Your task to perform on an android device: open sync settings in chrome Image 0: 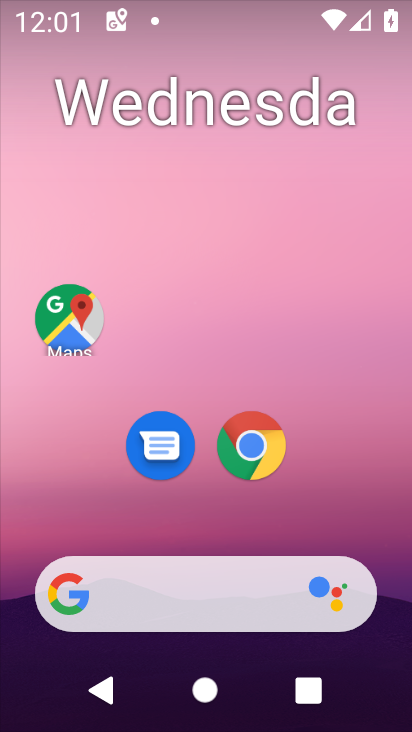
Step 0: click (254, 444)
Your task to perform on an android device: open sync settings in chrome Image 1: 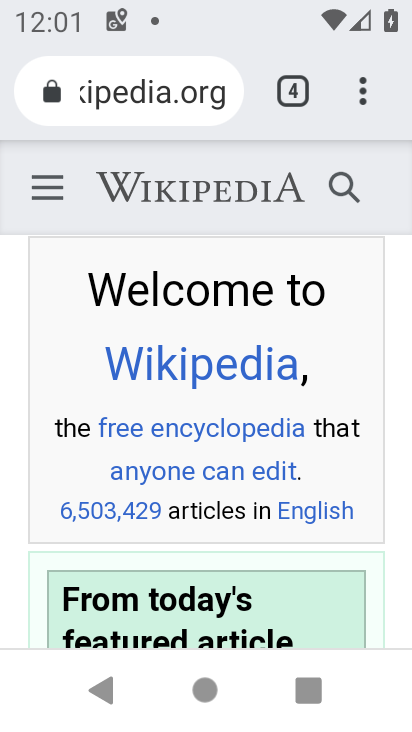
Step 1: click (362, 97)
Your task to perform on an android device: open sync settings in chrome Image 2: 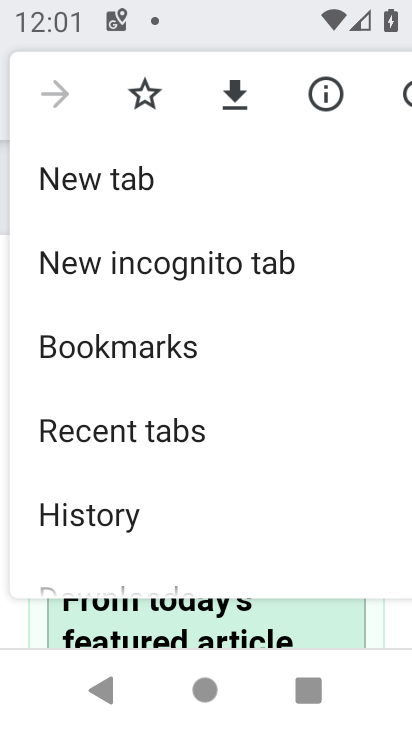
Step 2: drag from (111, 516) to (116, 470)
Your task to perform on an android device: open sync settings in chrome Image 3: 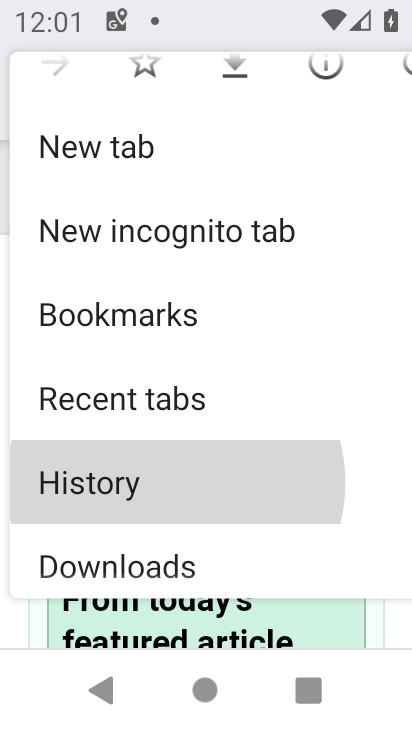
Step 3: drag from (120, 304) to (120, 99)
Your task to perform on an android device: open sync settings in chrome Image 4: 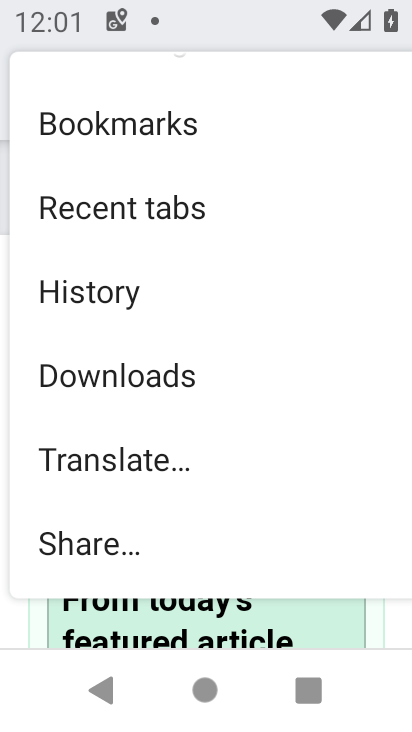
Step 4: drag from (104, 536) to (119, 141)
Your task to perform on an android device: open sync settings in chrome Image 5: 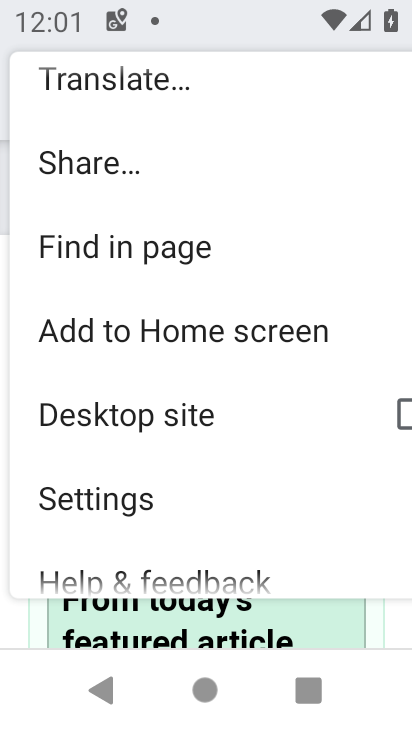
Step 5: click (116, 500)
Your task to perform on an android device: open sync settings in chrome Image 6: 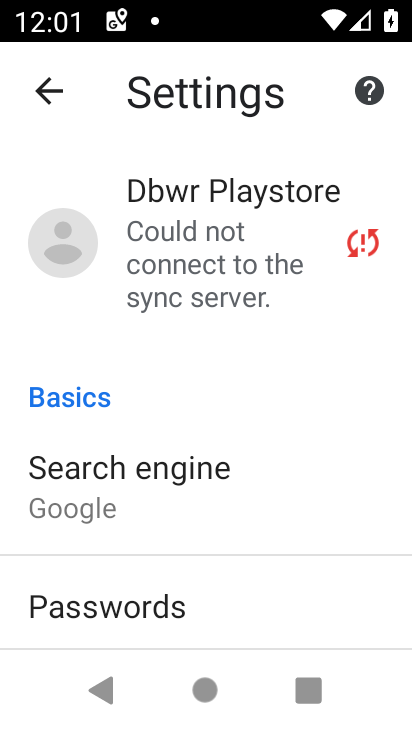
Step 6: drag from (134, 608) to (155, 191)
Your task to perform on an android device: open sync settings in chrome Image 7: 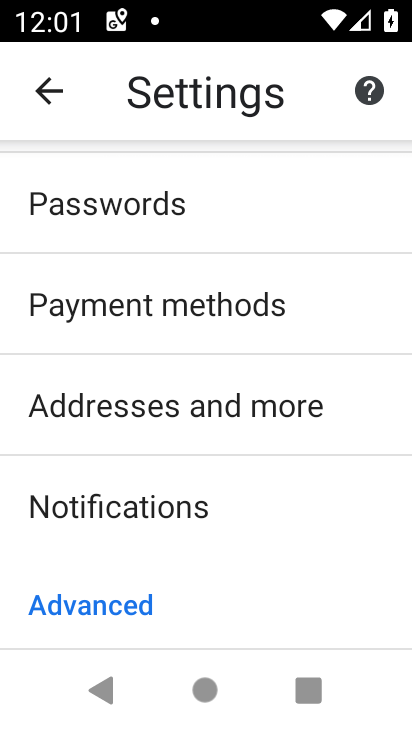
Step 7: drag from (125, 581) to (145, 174)
Your task to perform on an android device: open sync settings in chrome Image 8: 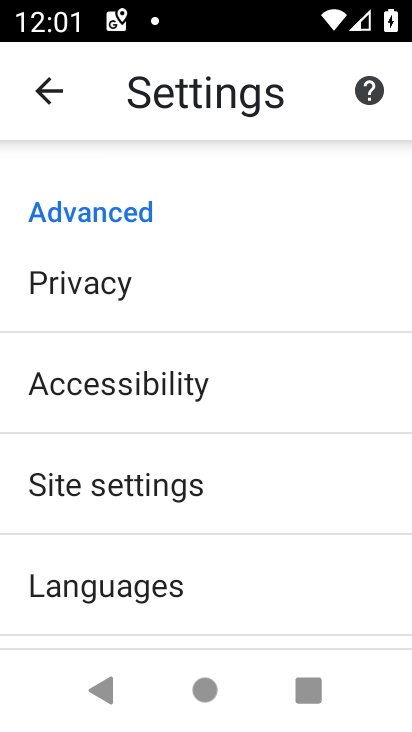
Step 8: click (114, 484)
Your task to perform on an android device: open sync settings in chrome Image 9: 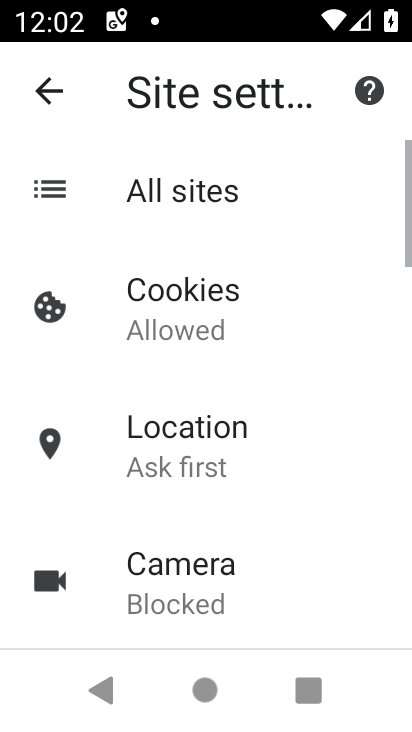
Step 9: drag from (138, 605) to (153, 308)
Your task to perform on an android device: open sync settings in chrome Image 10: 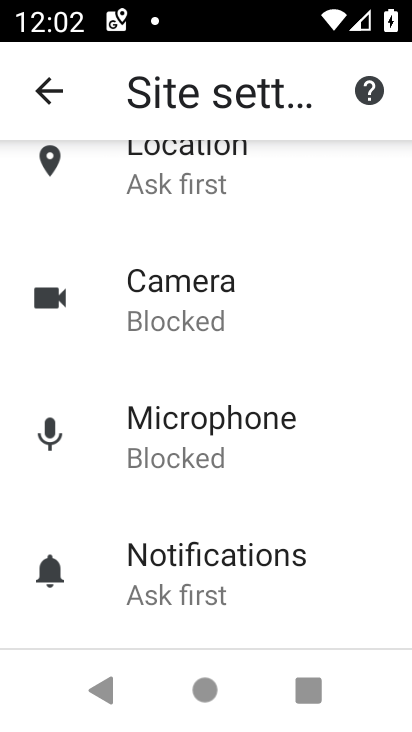
Step 10: drag from (158, 593) to (166, 299)
Your task to perform on an android device: open sync settings in chrome Image 11: 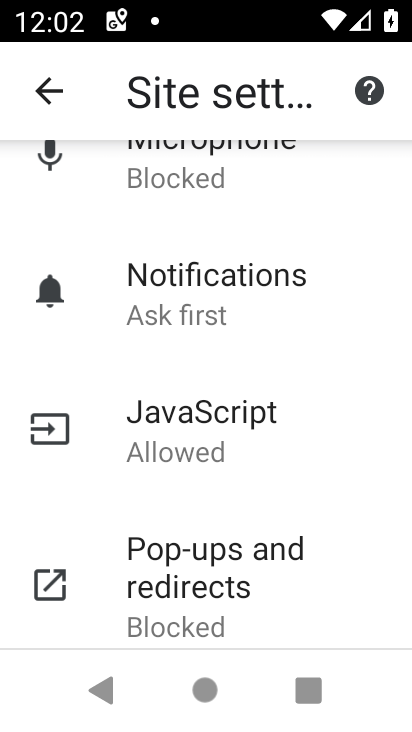
Step 11: drag from (154, 537) to (176, 248)
Your task to perform on an android device: open sync settings in chrome Image 12: 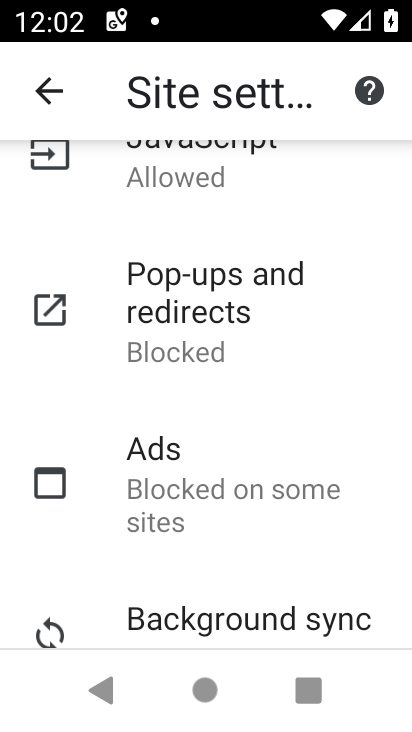
Step 12: click (176, 618)
Your task to perform on an android device: open sync settings in chrome Image 13: 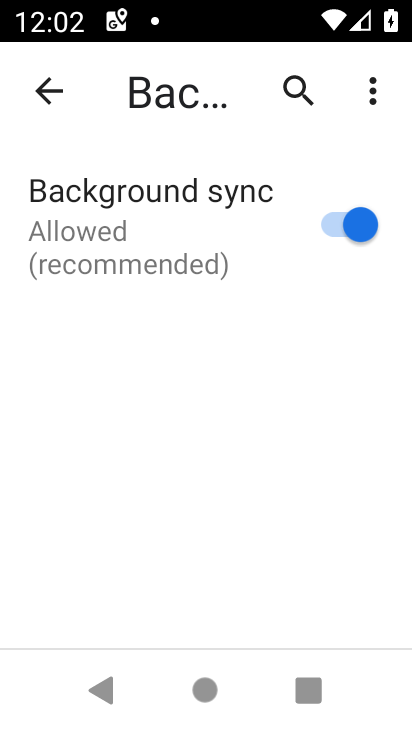
Step 13: task complete